Your task to perform on an android device: check battery use Image 0: 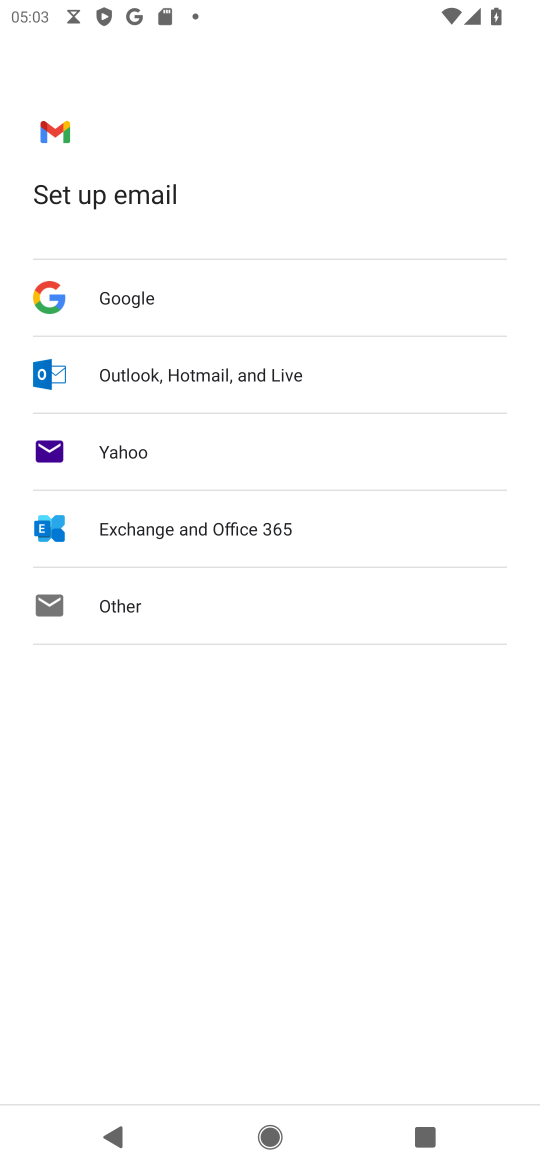
Step 0: press home button
Your task to perform on an android device: check battery use Image 1: 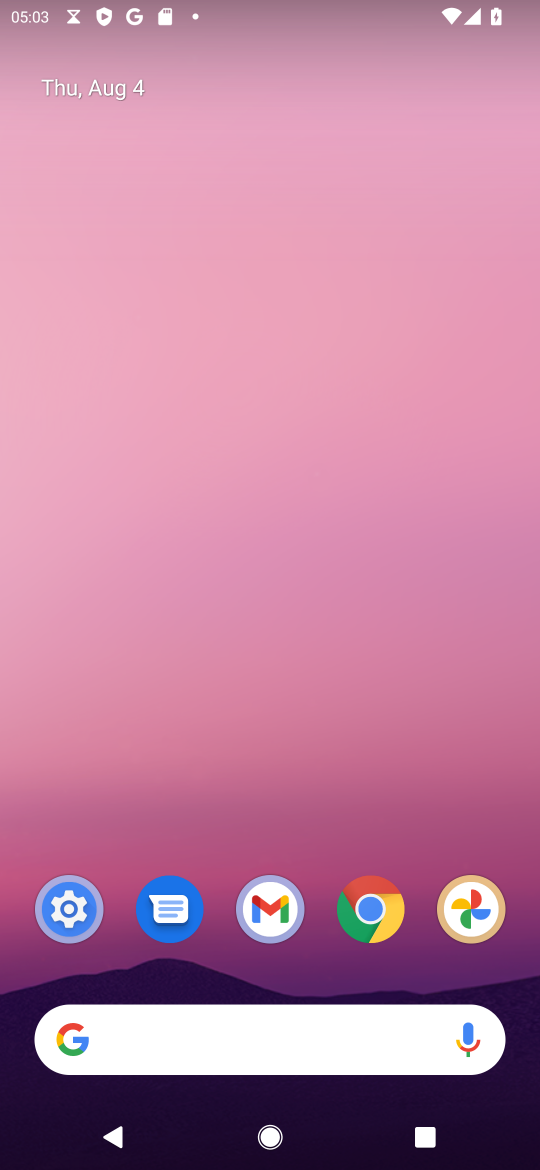
Step 1: click (73, 902)
Your task to perform on an android device: check battery use Image 2: 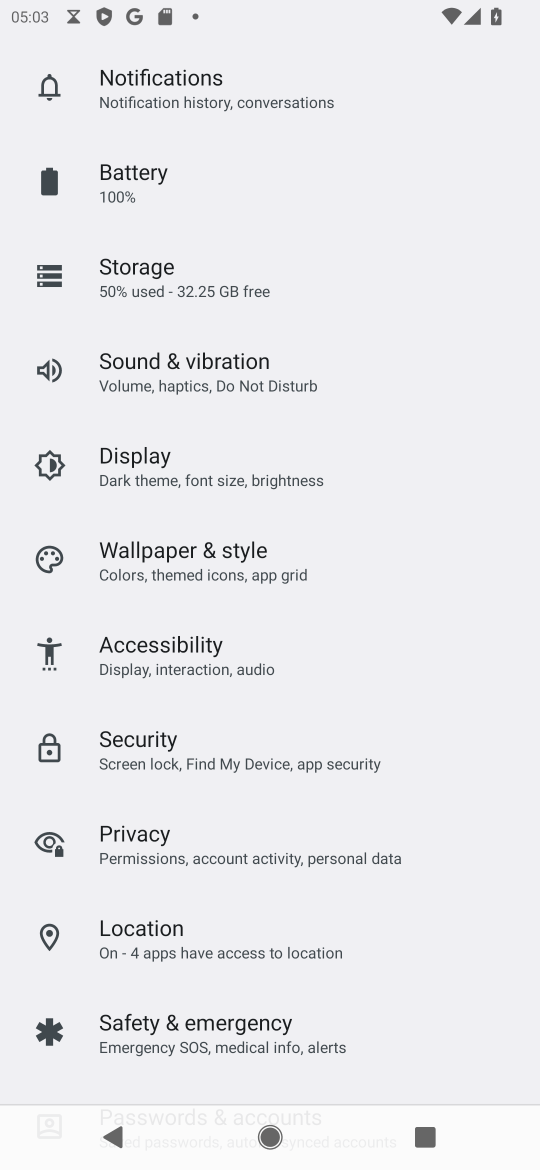
Step 2: drag from (266, 814) to (449, 233)
Your task to perform on an android device: check battery use Image 3: 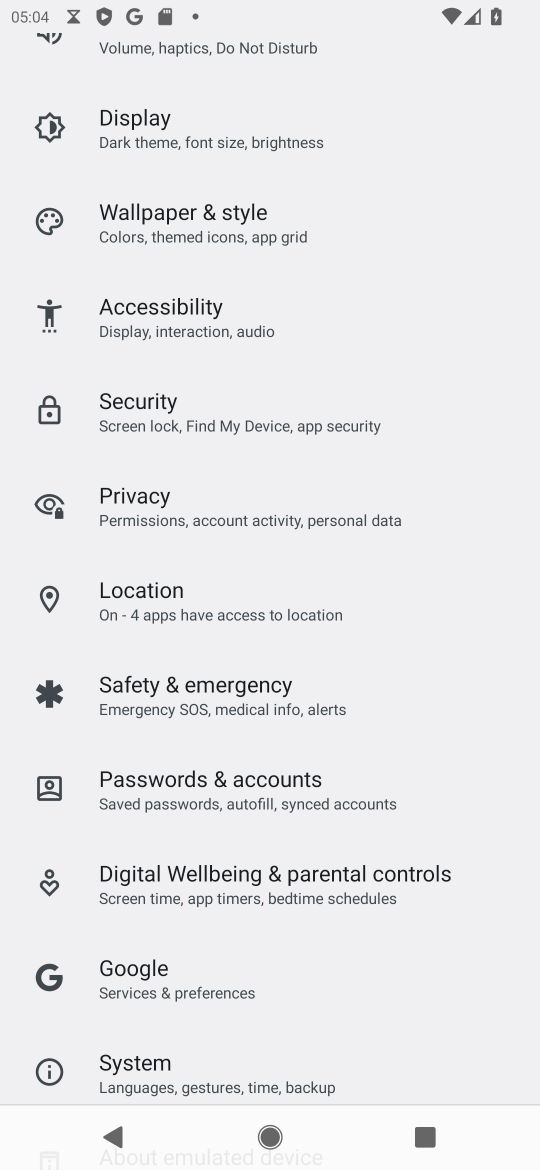
Step 3: drag from (383, 384) to (285, 935)
Your task to perform on an android device: check battery use Image 4: 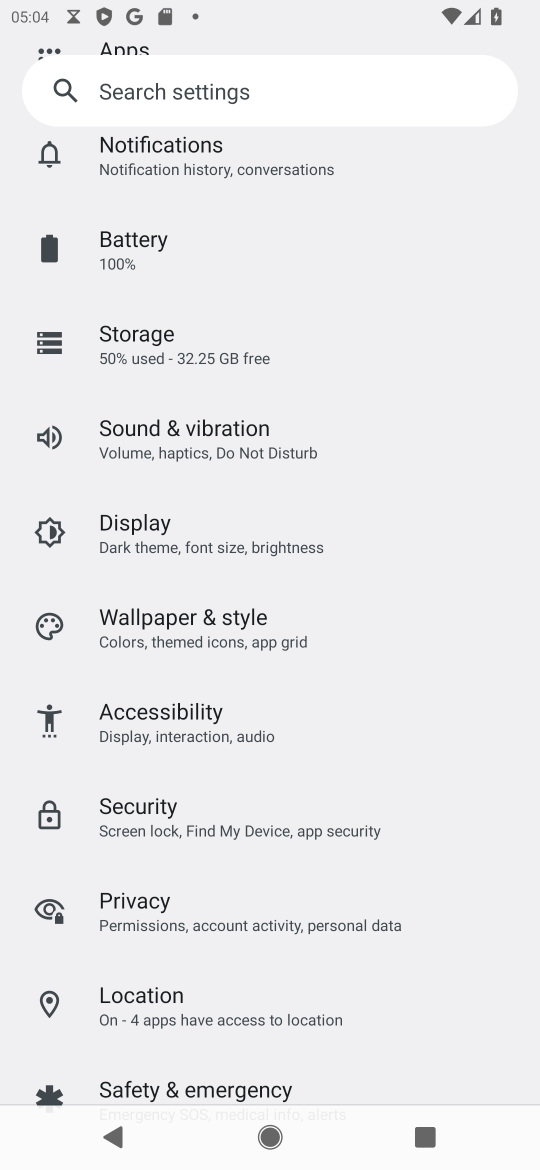
Step 4: click (140, 237)
Your task to perform on an android device: check battery use Image 5: 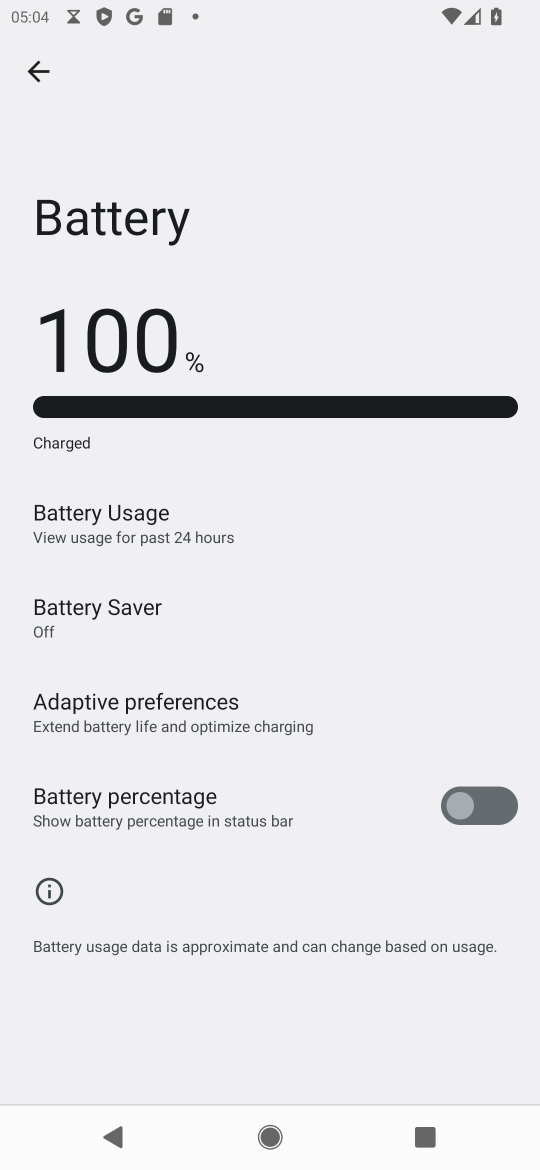
Step 5: click (152, 542)
Your task to perform on an android device: check battery use Image 6: 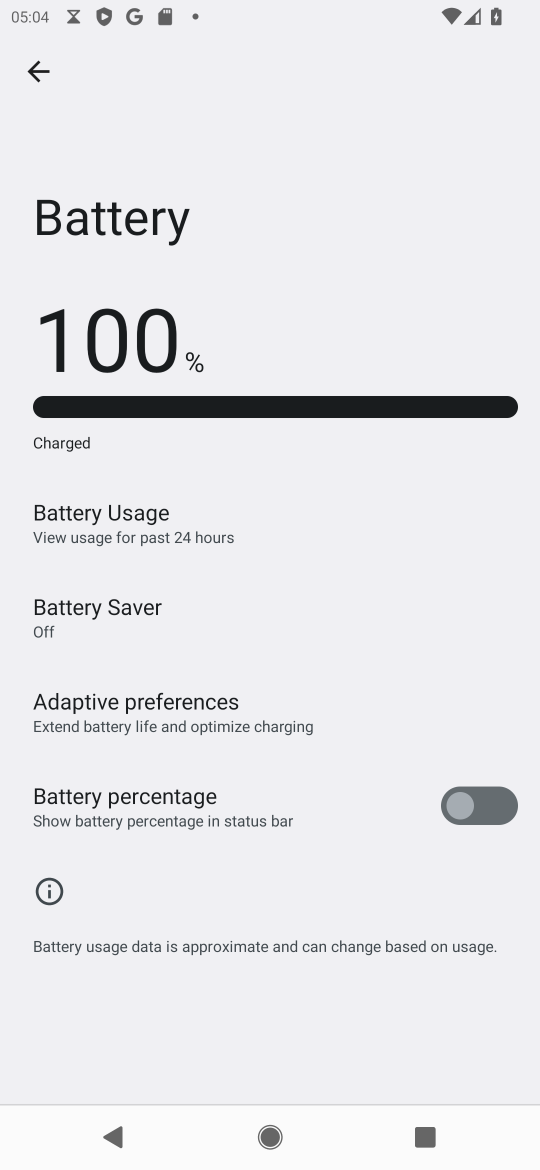
Step 6: task complete